Your task to perform on an android device: open app "LinkedIn" (install if not already installed) Image 0: 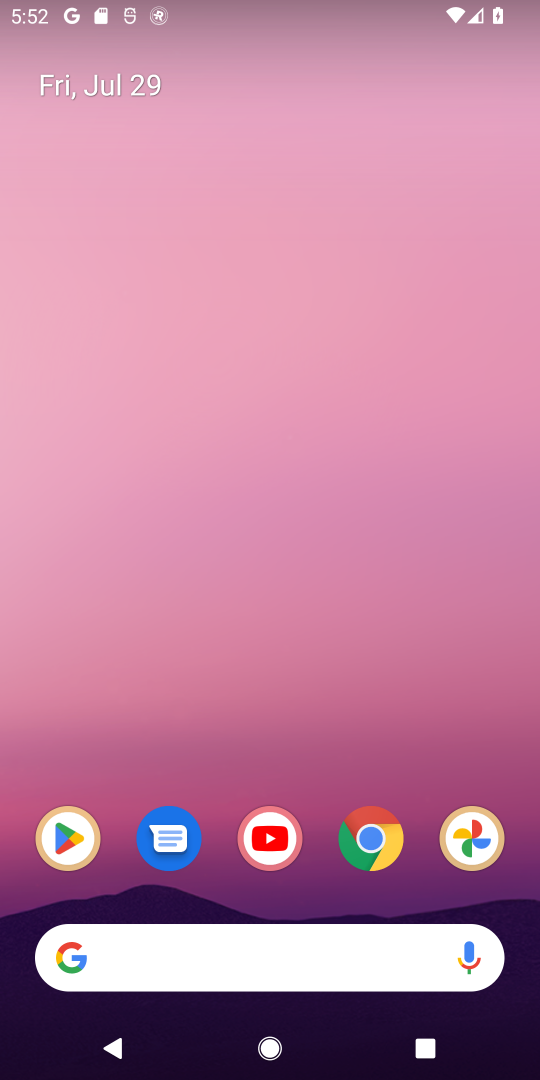
Step 0: click (51, 832)
Your task to perform on an android device: open app "LinkedIn" (install if not already installed) Image 1: 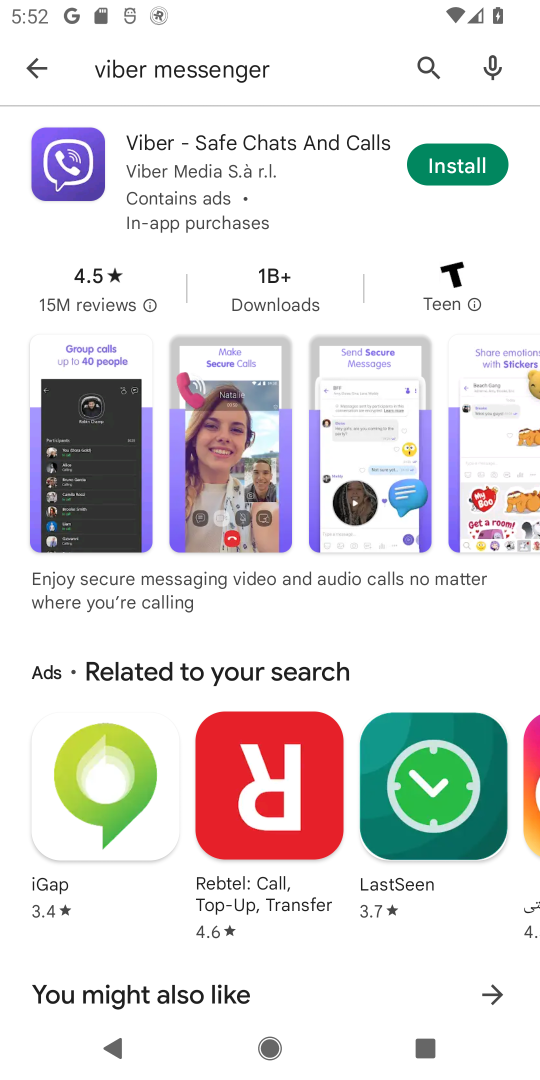
Step 1: click (430, 61)
Your task to perform on an android device: open app "LinkedIn" (install if not already installed) Image 2: 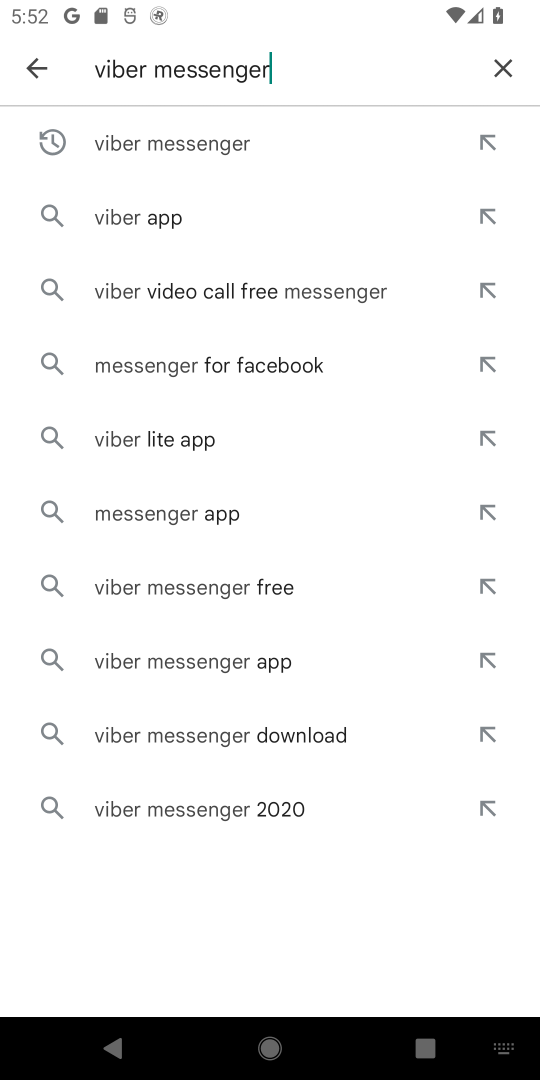
Step 2: click (502, 56)
Your task to perform on an android device: open app "LinkedIn" (install if not already installed) Image 3: 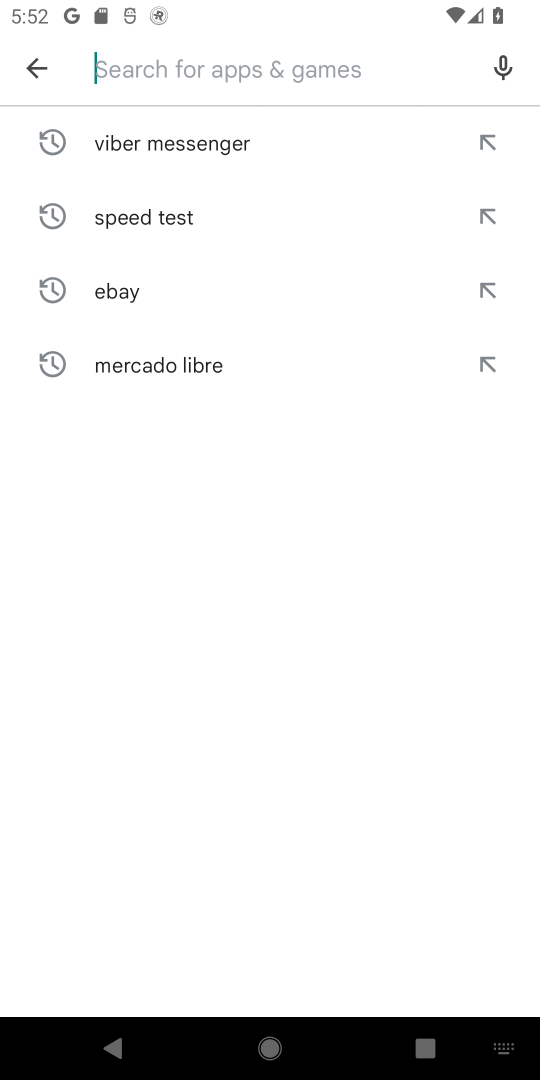
Step 3: type "linkedln"
Your task to perform on an android device: open app "LinkedIn" (install if not already installed) Image 4: 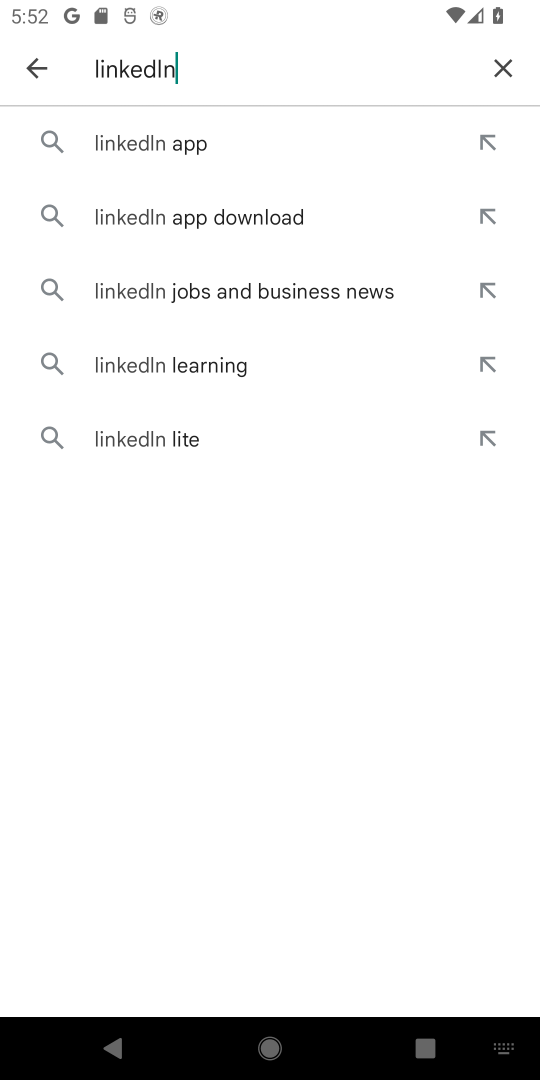
Step 4: click (218, 133)
Your task to perform on an android device: open app "LinkedIn" (install if not already installed) Image 5: 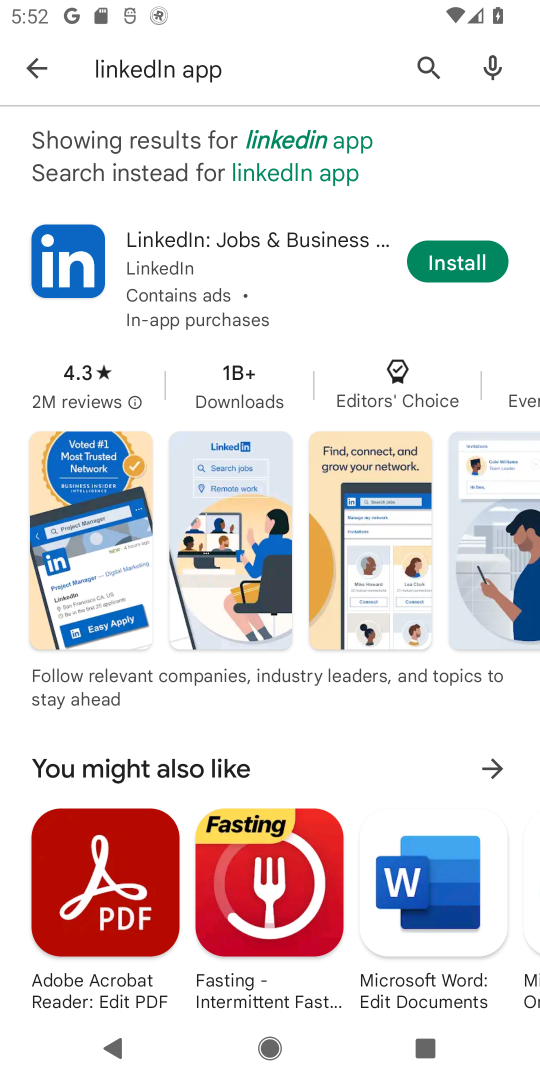
Step 5: click (451, 245)
Your task to perform on an android device: open app "LinkedIn" (install if not already installed) Image 6: 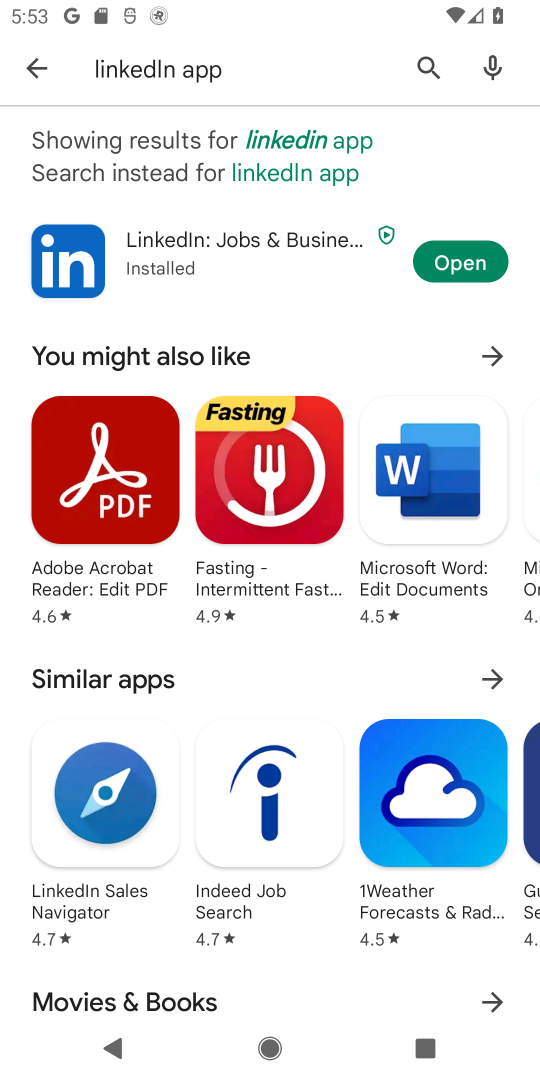
Step 6: click (456, 277)
Your task to perform on an android device: open app "LinkedIn" (install if not already installed) Image 7: 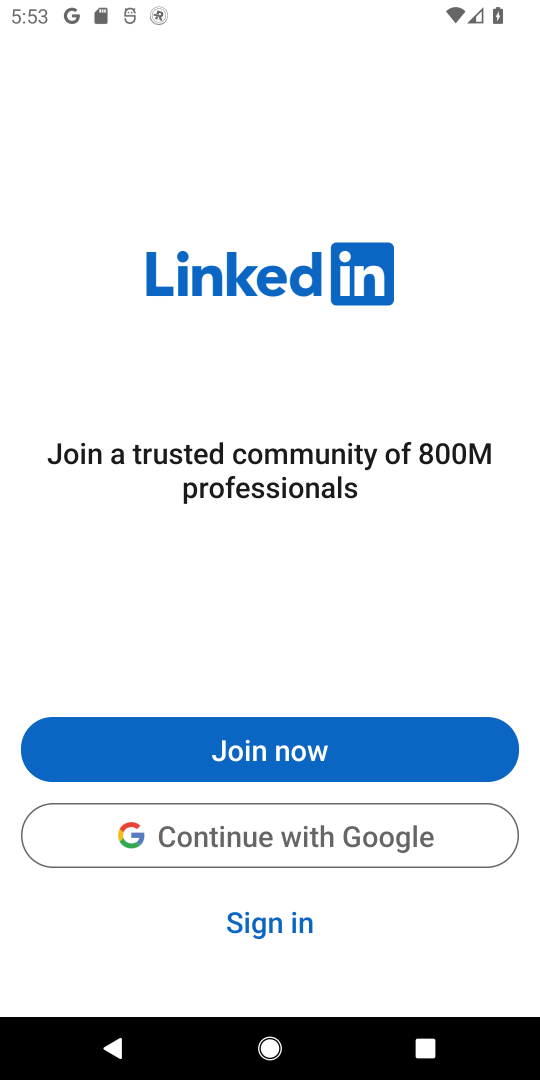
Step 7: task complete